Your task to perform on an android device: install app "Spotify: Music and Podcasts" Image 0: 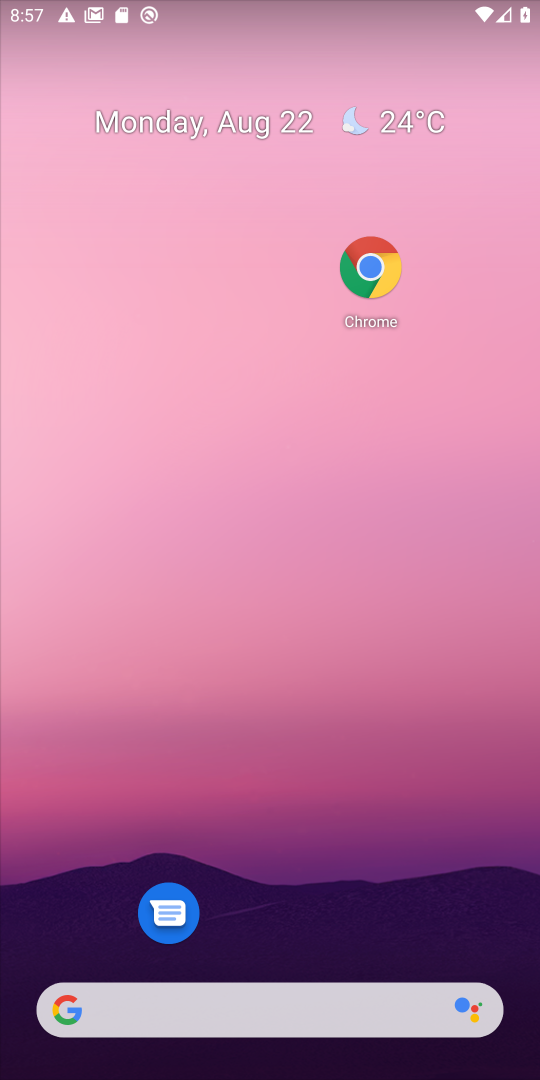
Step 0: drag from (287, 1008) to (293, 150)
Your task to perform on an android device: install app "Spotify: Music and Podcasts" Image 1: 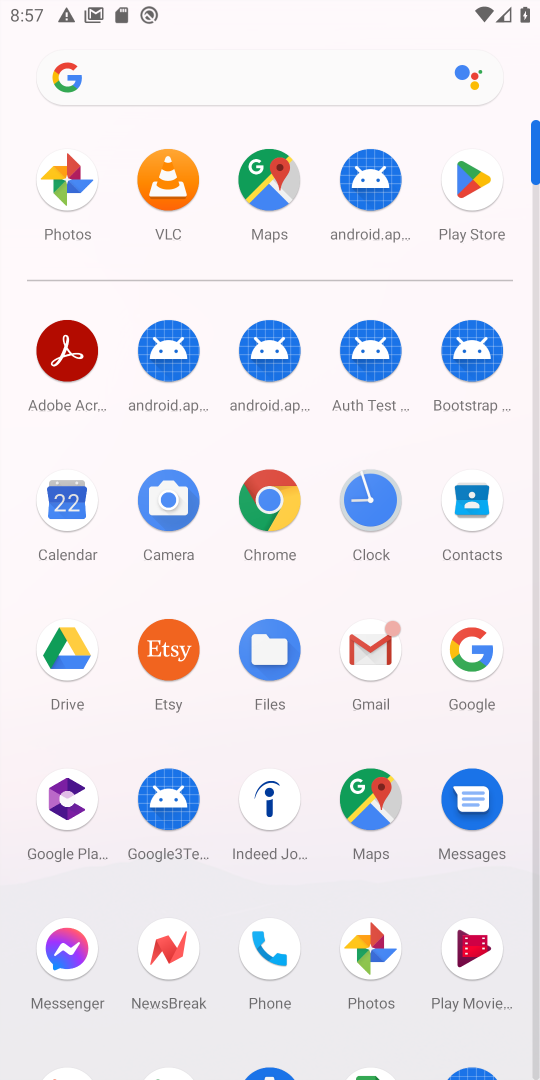
Step 1: click (470, 183)
Your task to perform on an android device: install app "Spotify: Music and Podcasts" Image 2: 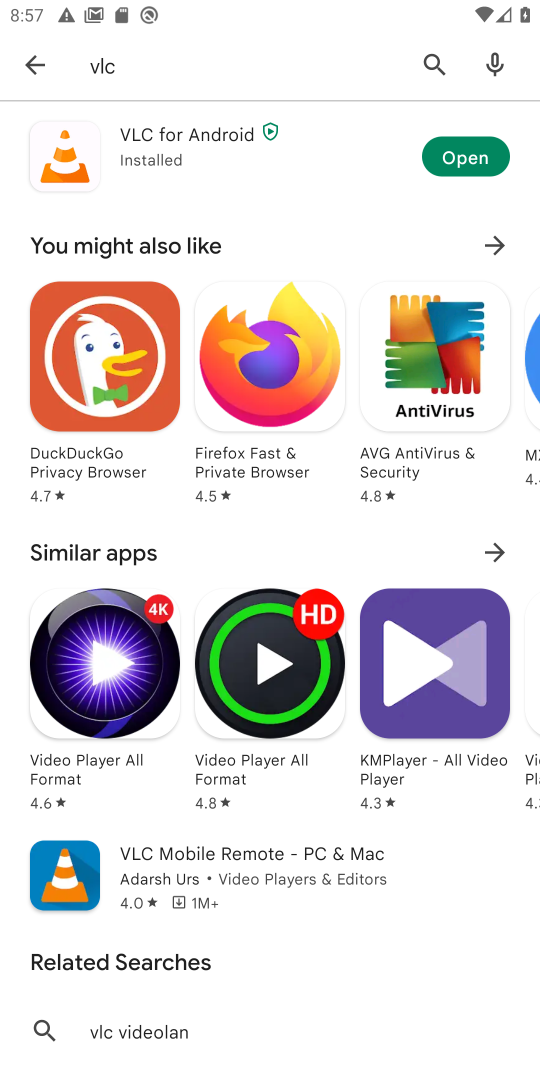
Step 2: click (422, 58)
Your task to perform on an android device: install app "Spotify: Music and Podcasts" Image 3: 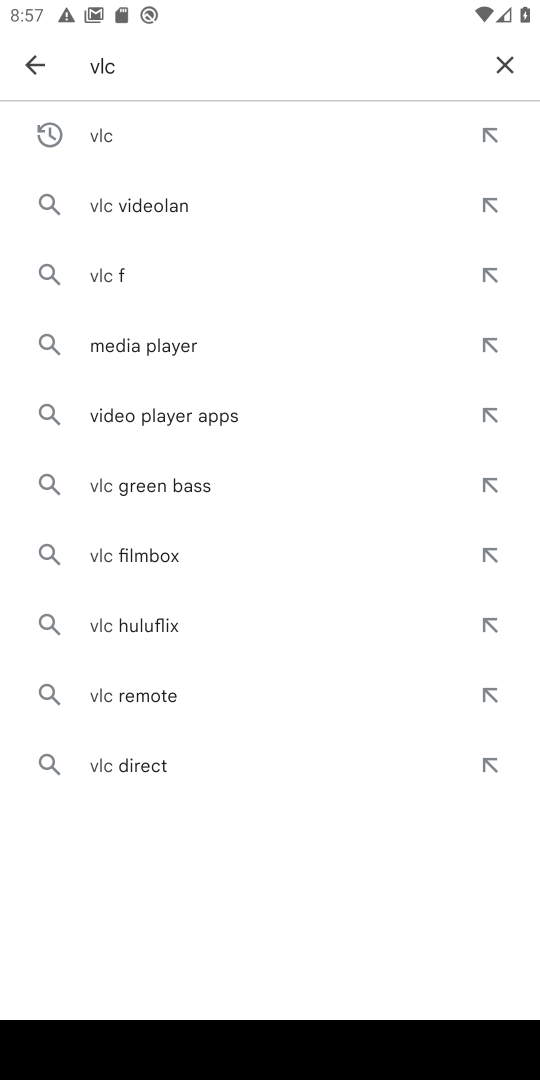
Step 3: click (501, 68)
Your task to perform on an android device: install app "Spotify: Music and Podcasts" Image 4: 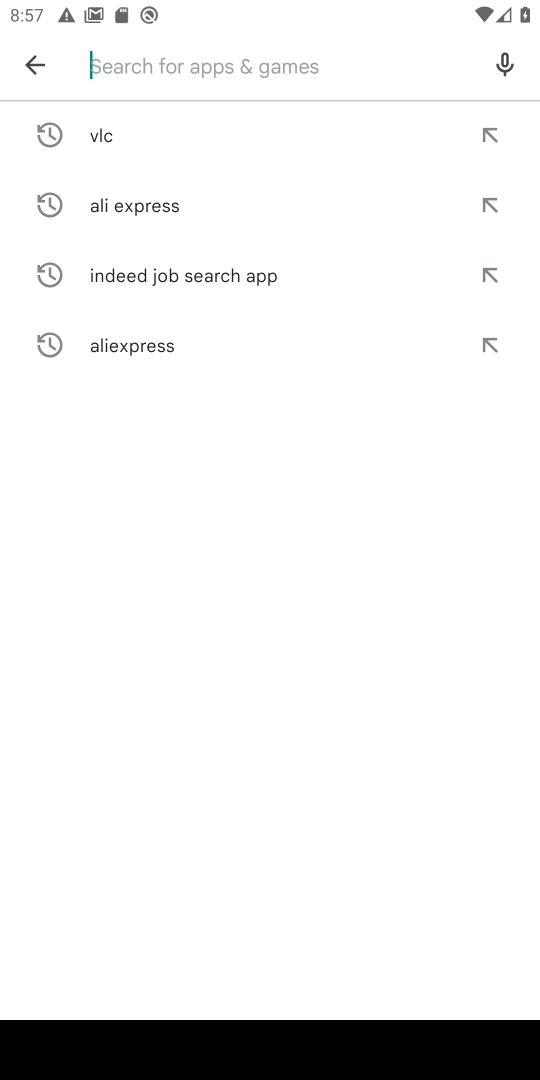
Step 4: type "spotify"
Your task to perform on an android device: install app "Spotify: Music and Podcasts" Image 5: 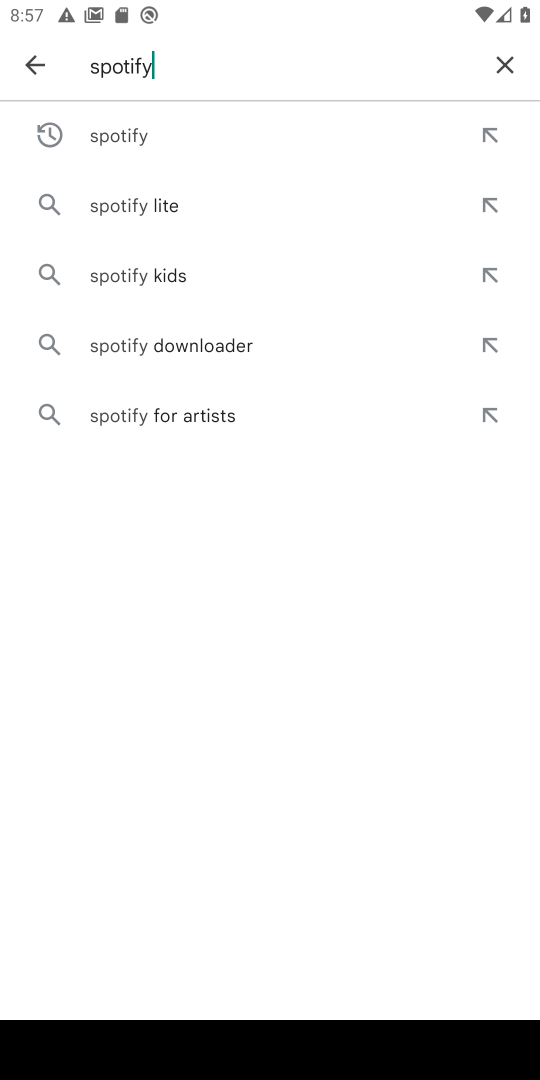
Step 5: click (130, 125)
Your task to perform on an android device: install app "Spotify: Music and Podcasts" Image 6: 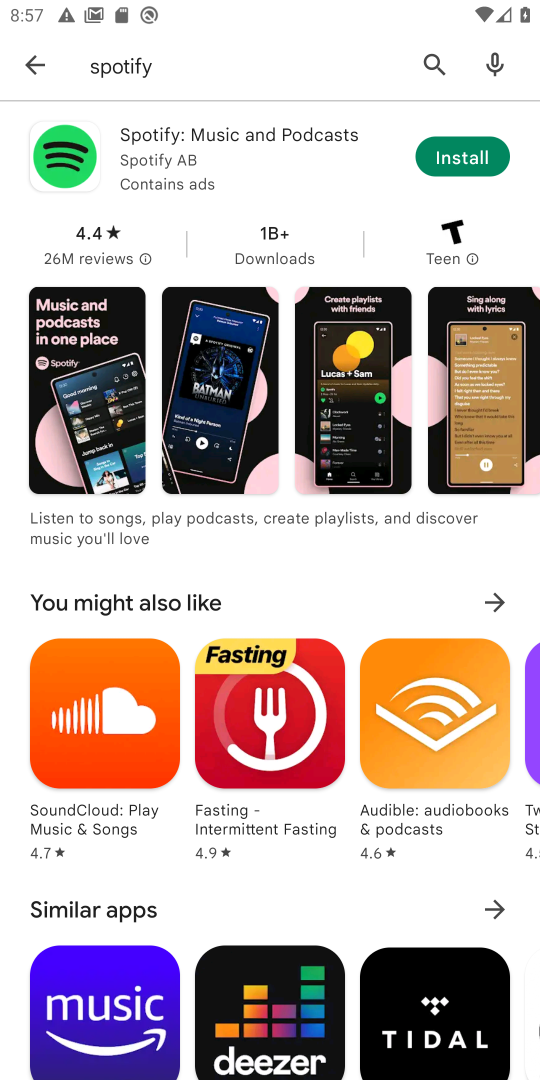
Step 6: click (457, 155)
Your task to perform on an android device: install app "Spotify: Music and Podcasts" Image 7: 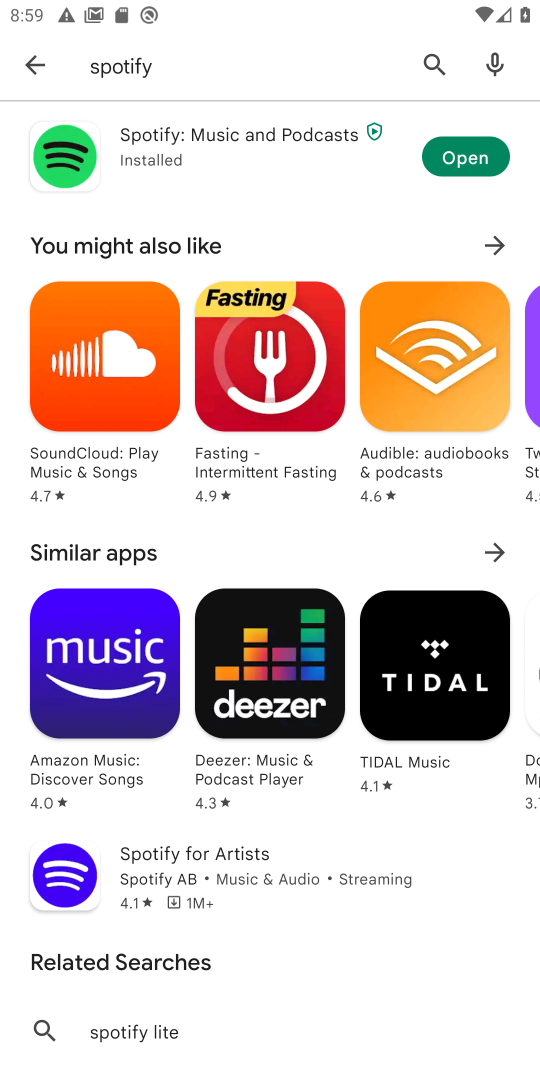
Step 7: task complete